Your task to perform on an android device: add a label to a message in the gmail app Image 0: 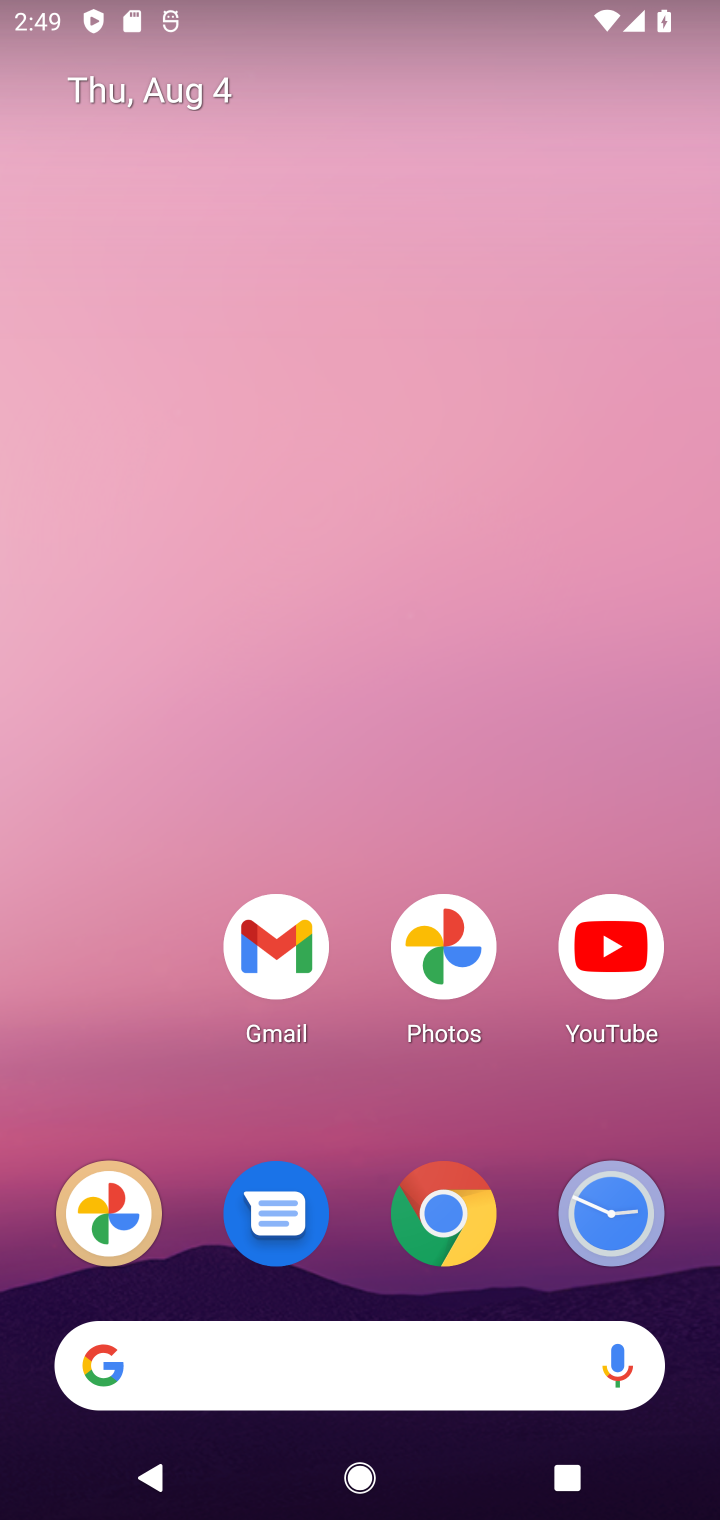
Step 0: click (263, 907)
Your task to perform on an android device: add a label to a message in the gmail app Image 1: 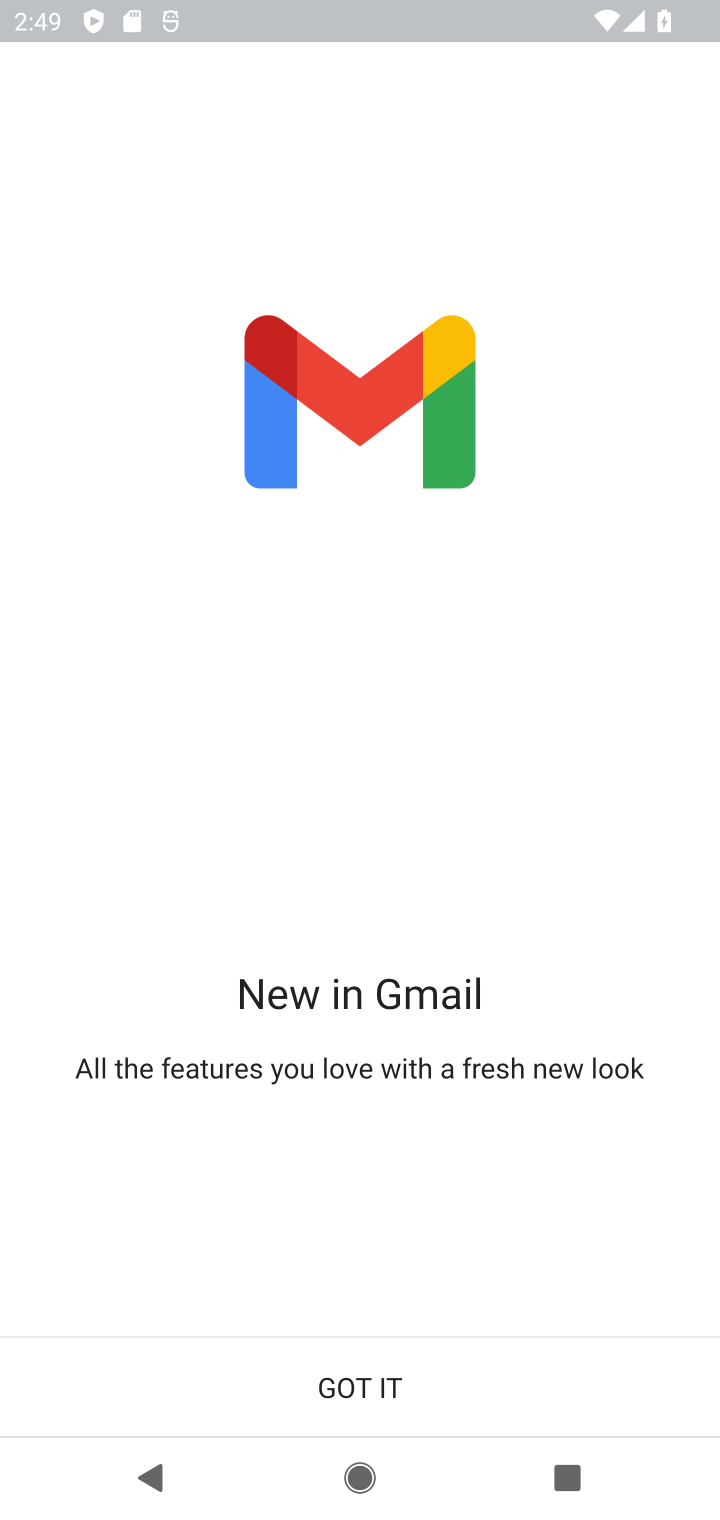
Step 1: click (379, 1358)
Your task to perform on an android device: add a label to a message in the gmail app Image 2: 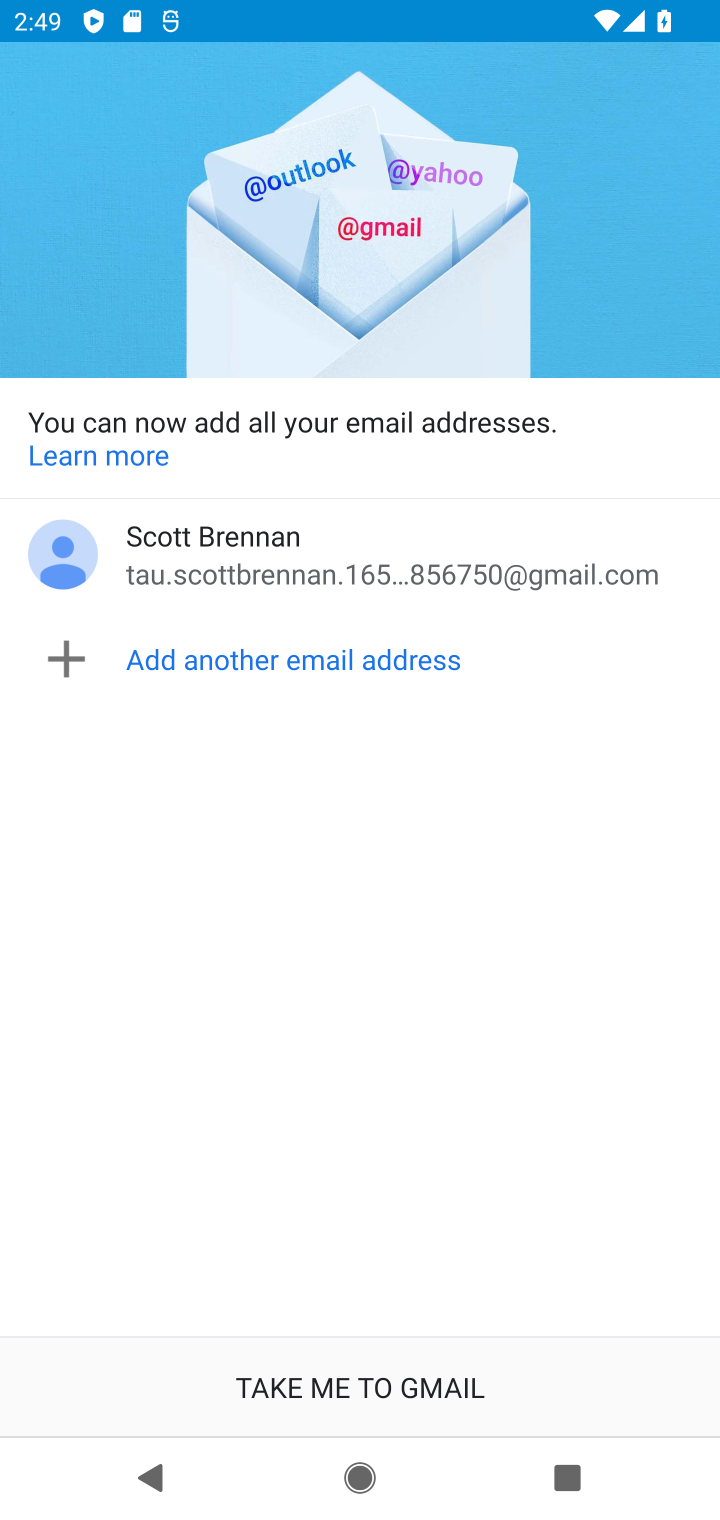
Step 2: click (433, 1394)
Your task to perform on an android device: add a label to a message in the gmail app Image 3: 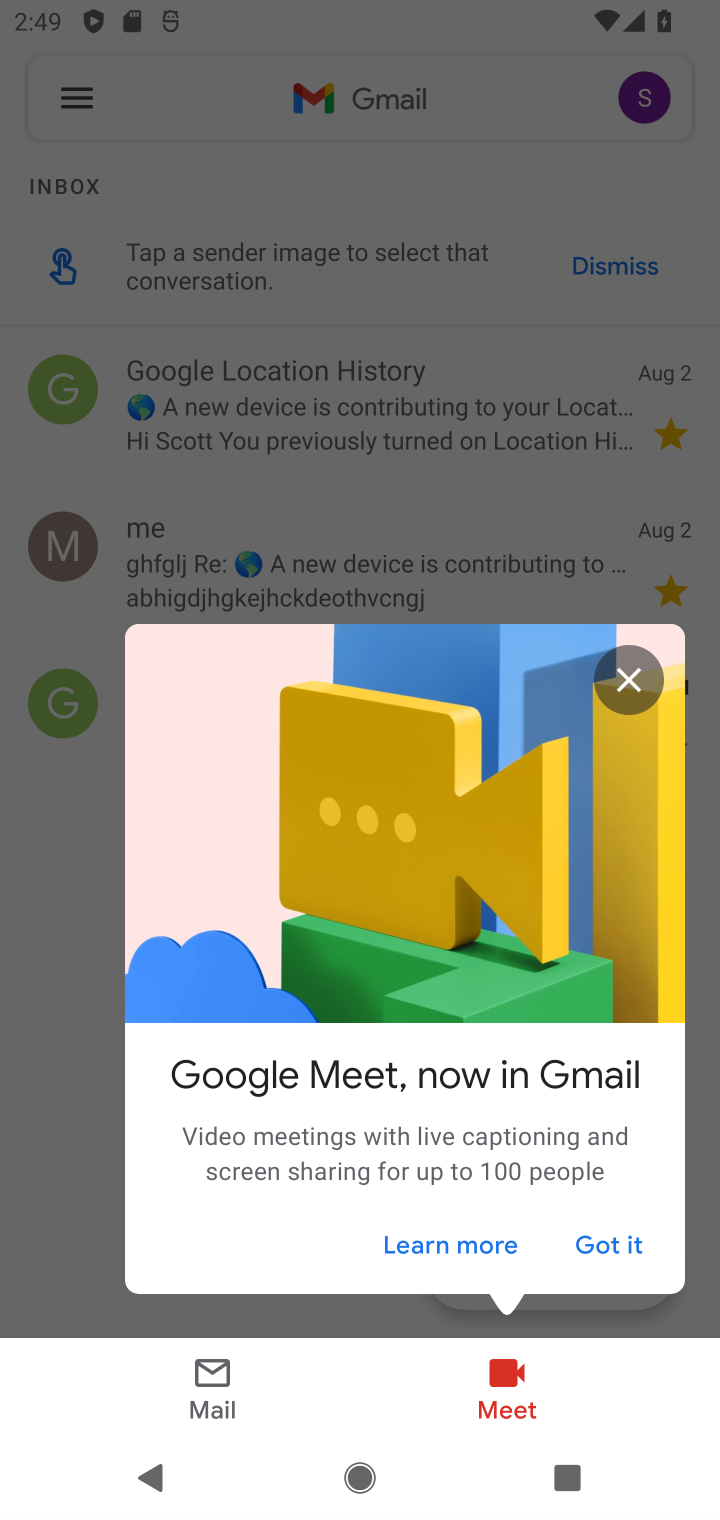
Step 3: click (581, 1243)
Your task to perform on an android device: add a label to a message in the gmail app Image 4: 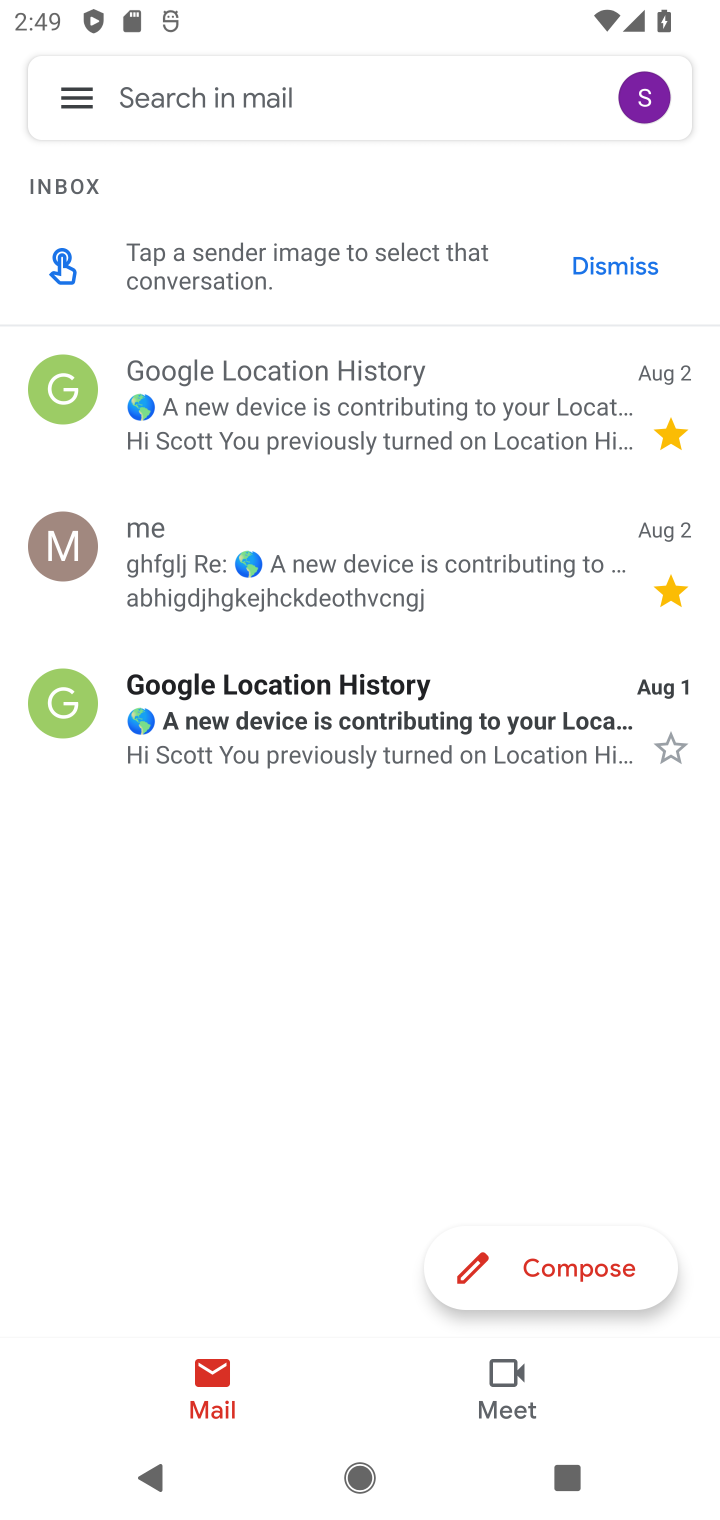
Step 4: click (468, 427)
Your task to perform on an android device: add a label to a message in the gmail app Image 5: 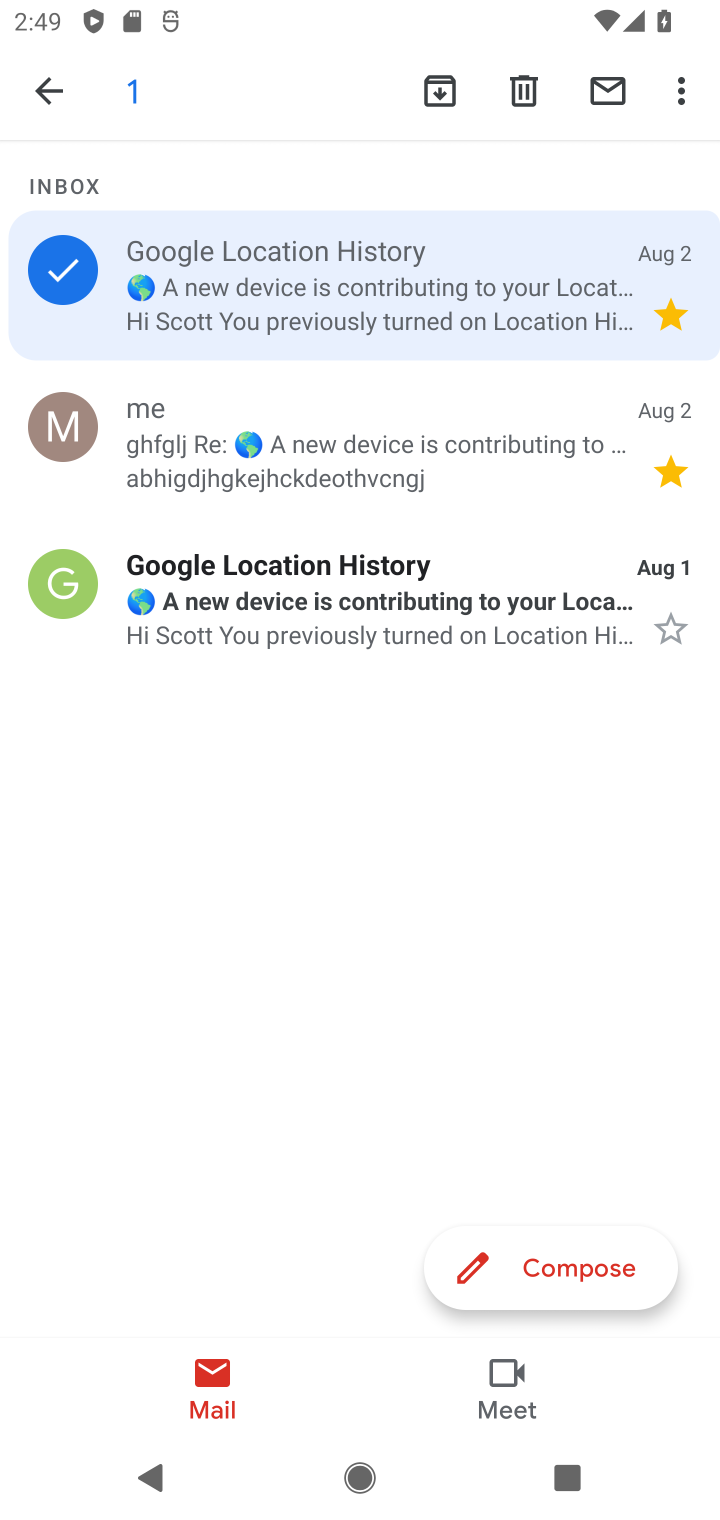
Step 5: click (393, 293)
Your task to perform on an android device: add a label to a message in the gmail app Image 6: 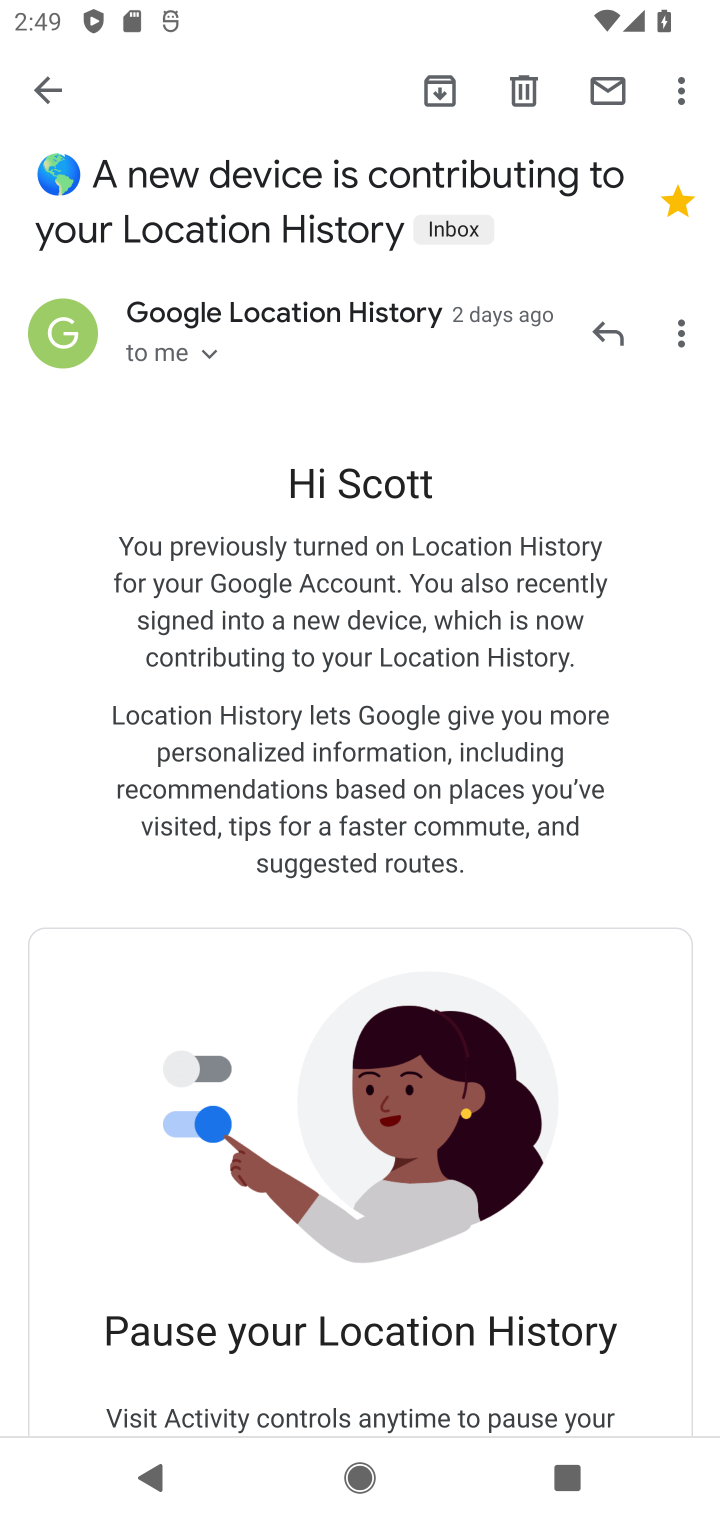
Step 6: click (682, 337)
Your task to perform on an android device: add a label to a message in the gmail app Image 7: 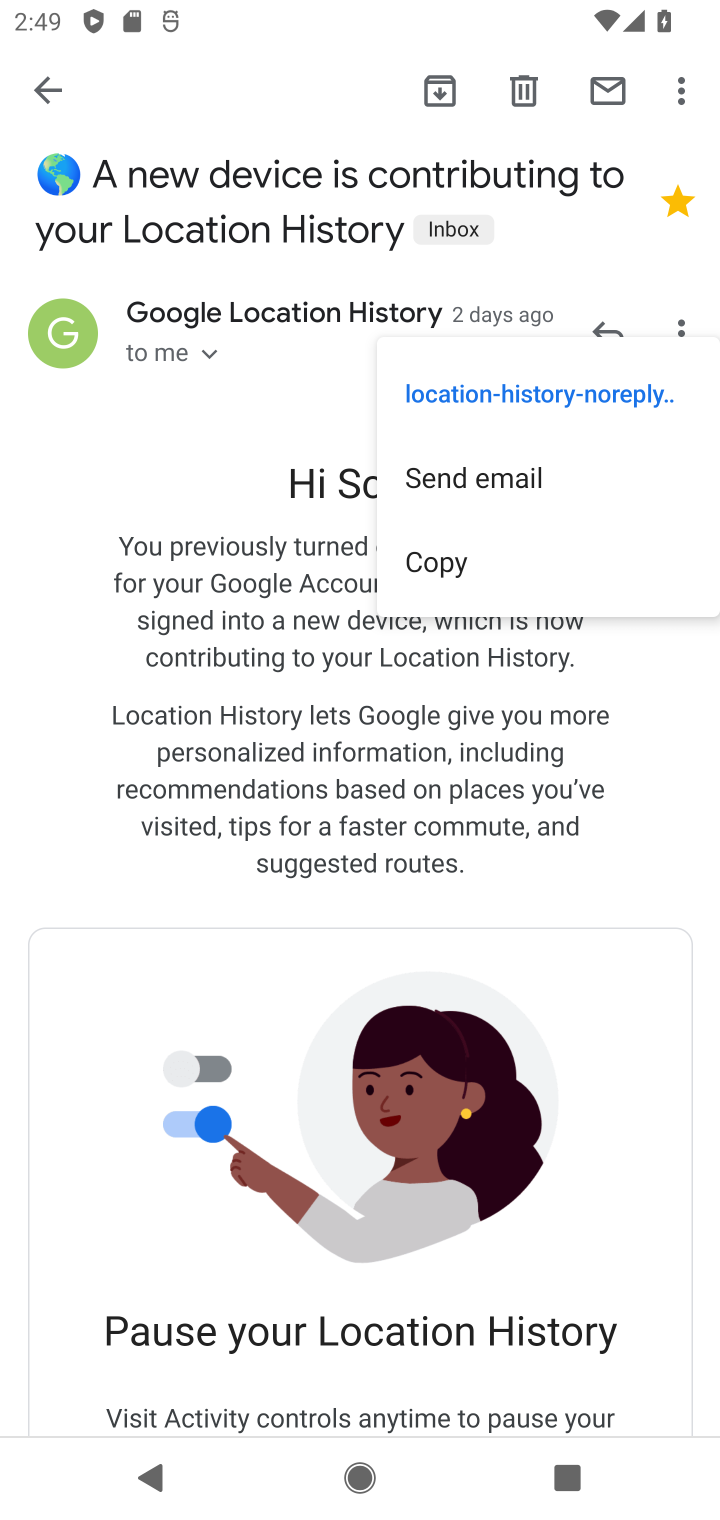
Step 7: click (680, 319)
Your task to perform on an android device: add a label to a message in the gmail app Image 8: 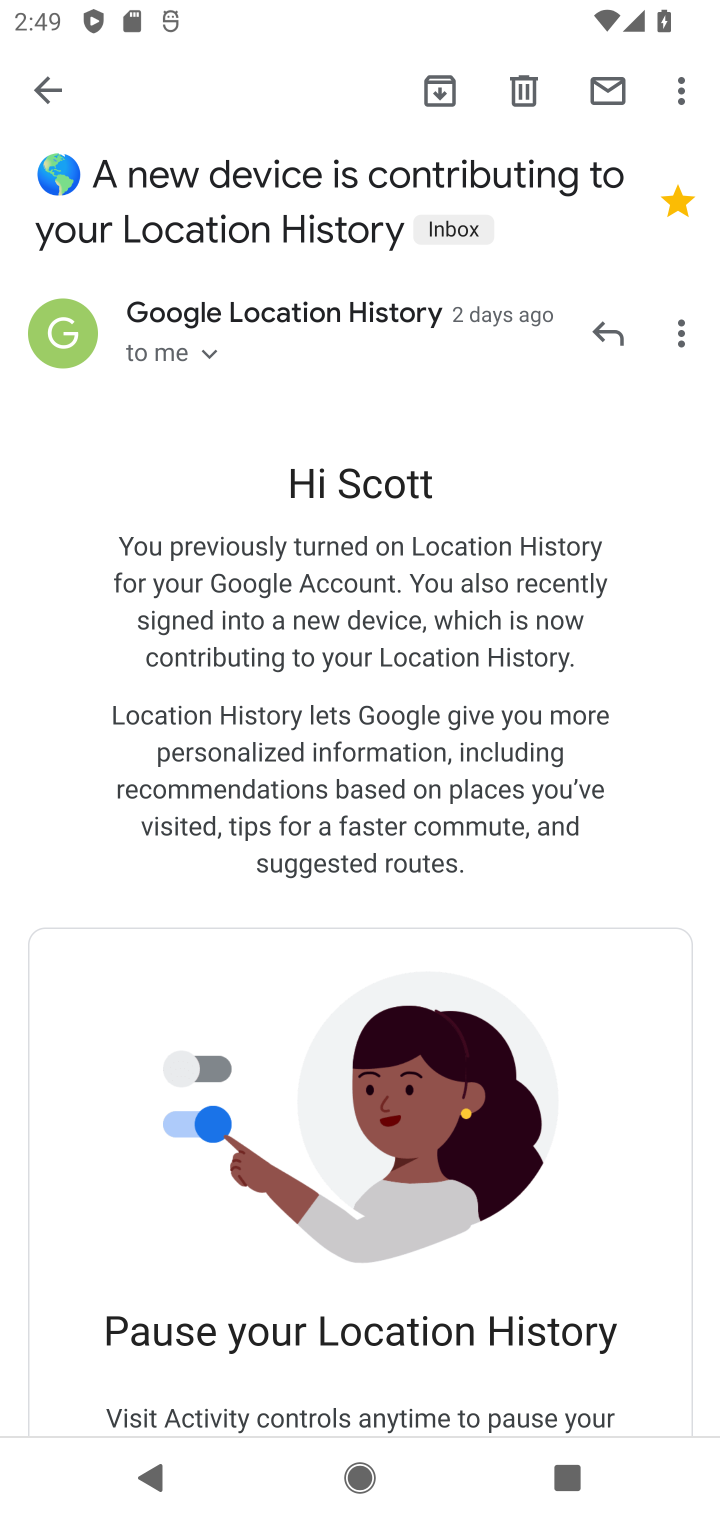
Step 8: click (671, 70)
Your task to perform on an android device: add a label to a message in the gmail app Image 9: 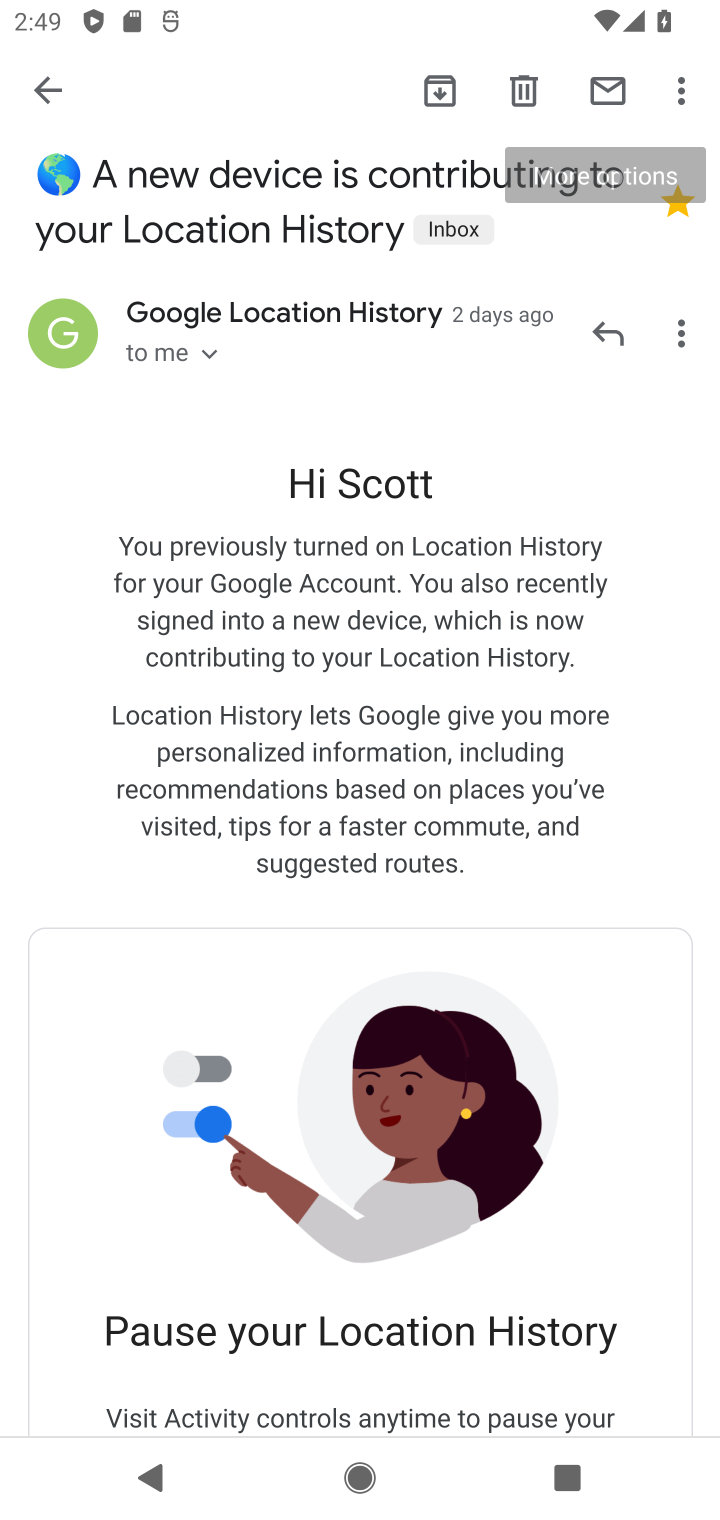
Step 9: click (676, 75)
Your task to perform on an android device: add a label to a message in the gmail app Image 10: 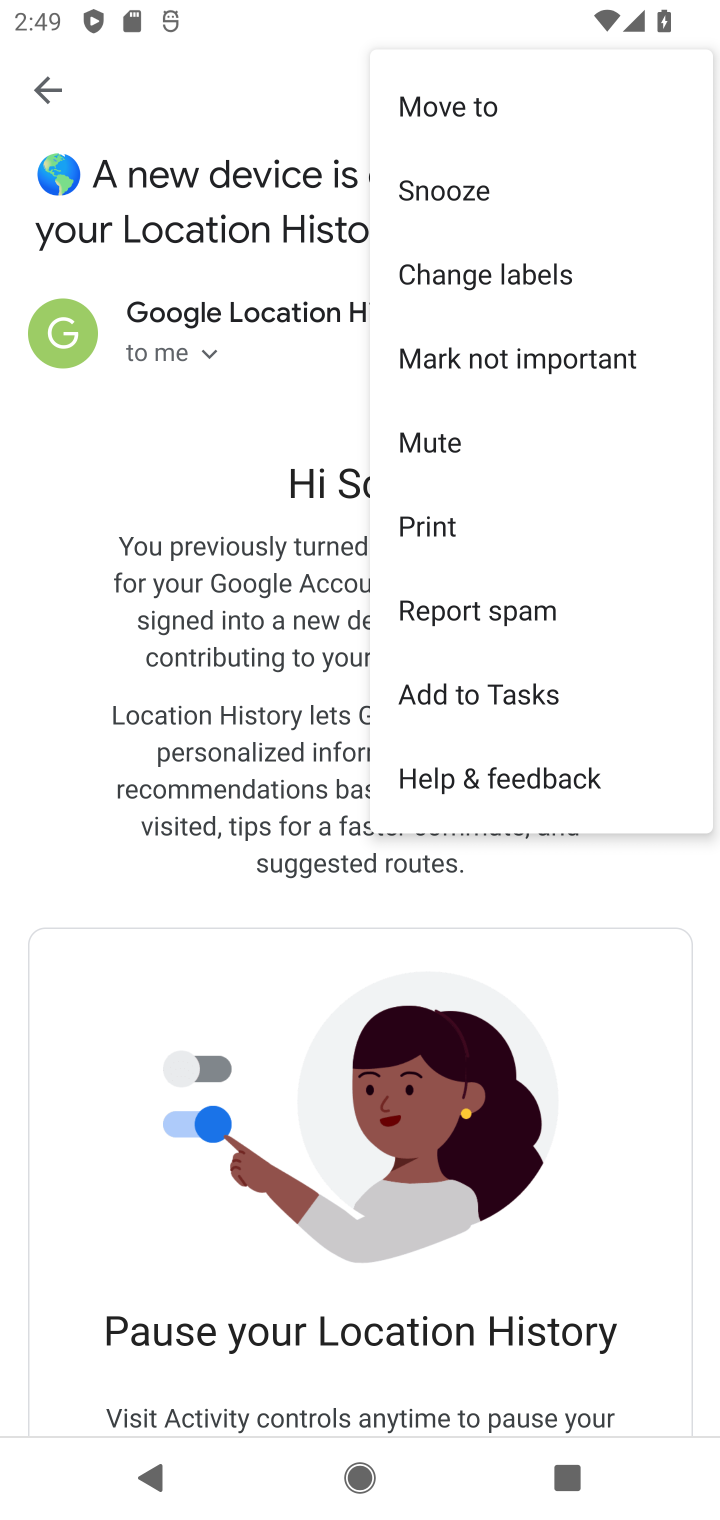
Step 10: task complete